Your task to perform on an android device: check storage Image 0: 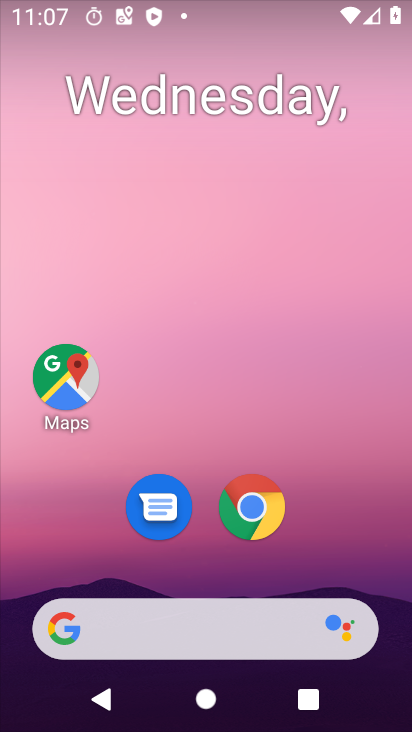
Step 0: drag from (229, 724) to (225, 111)
Your task to perform on an android device: check storage Image 1: 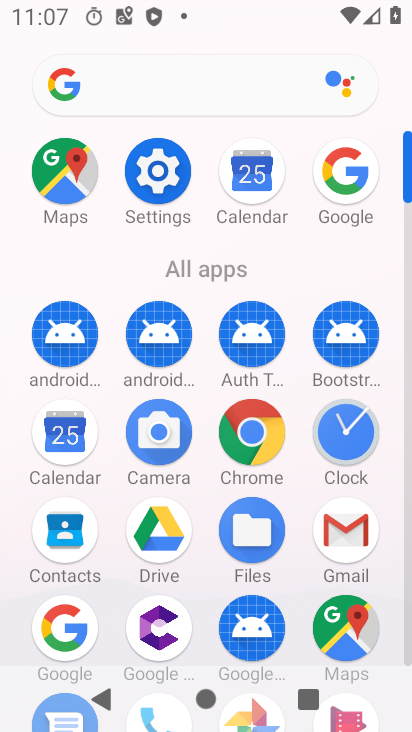
Step 1: click (152, 176)
Your task to perform on an android device: check storage Image 2: 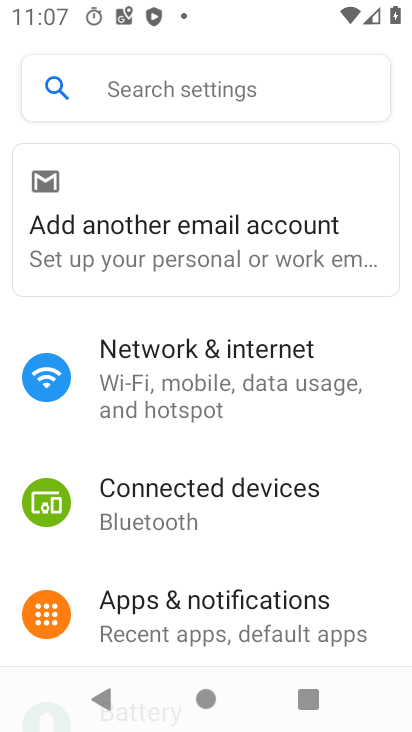
Step 2: drag from (160, 628) to (160, 124)
Your task to perform on an android device: check storage Image 3: 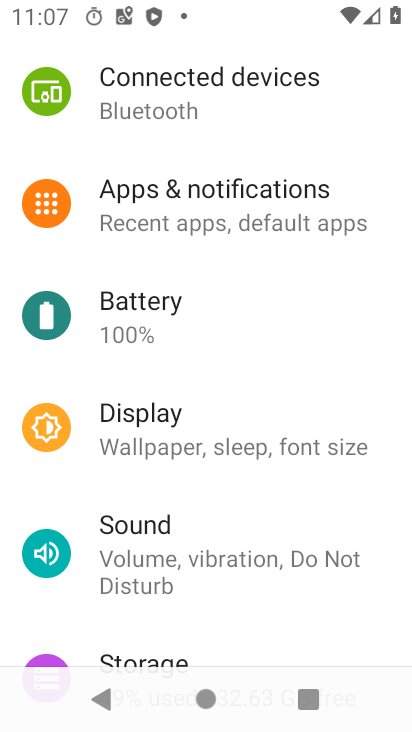
Step 3: drag from (157, 620) to (157, 175)
Your task to perform on an android device: check storage Image 4: 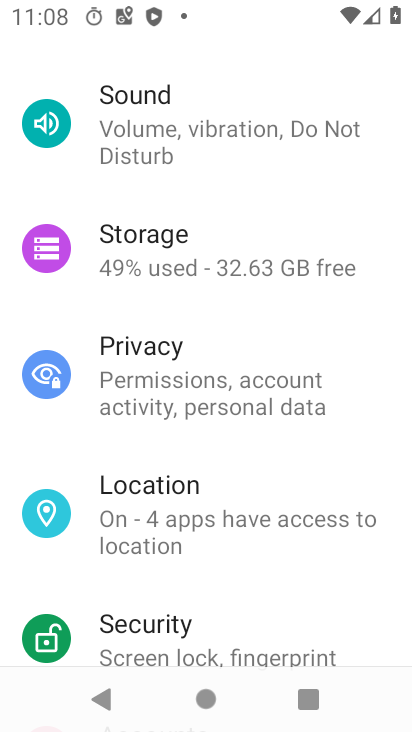
Step 4: click (151, 253)
Your task to perform on an android device: check storage Image 5: 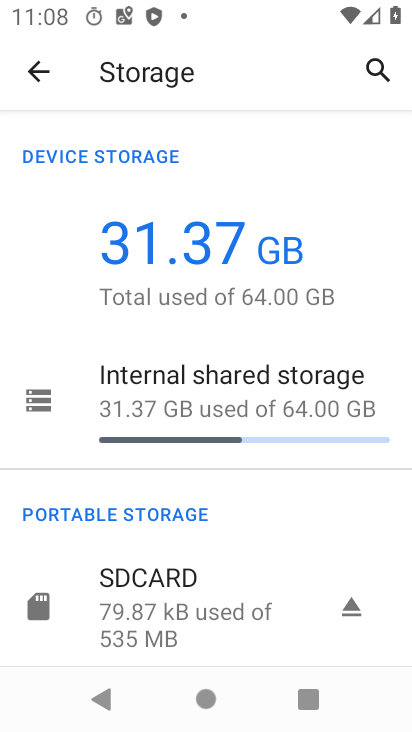
Step 5: task complete